Your task to perform on an android device: turn off data saver in the chrome app Image 0: 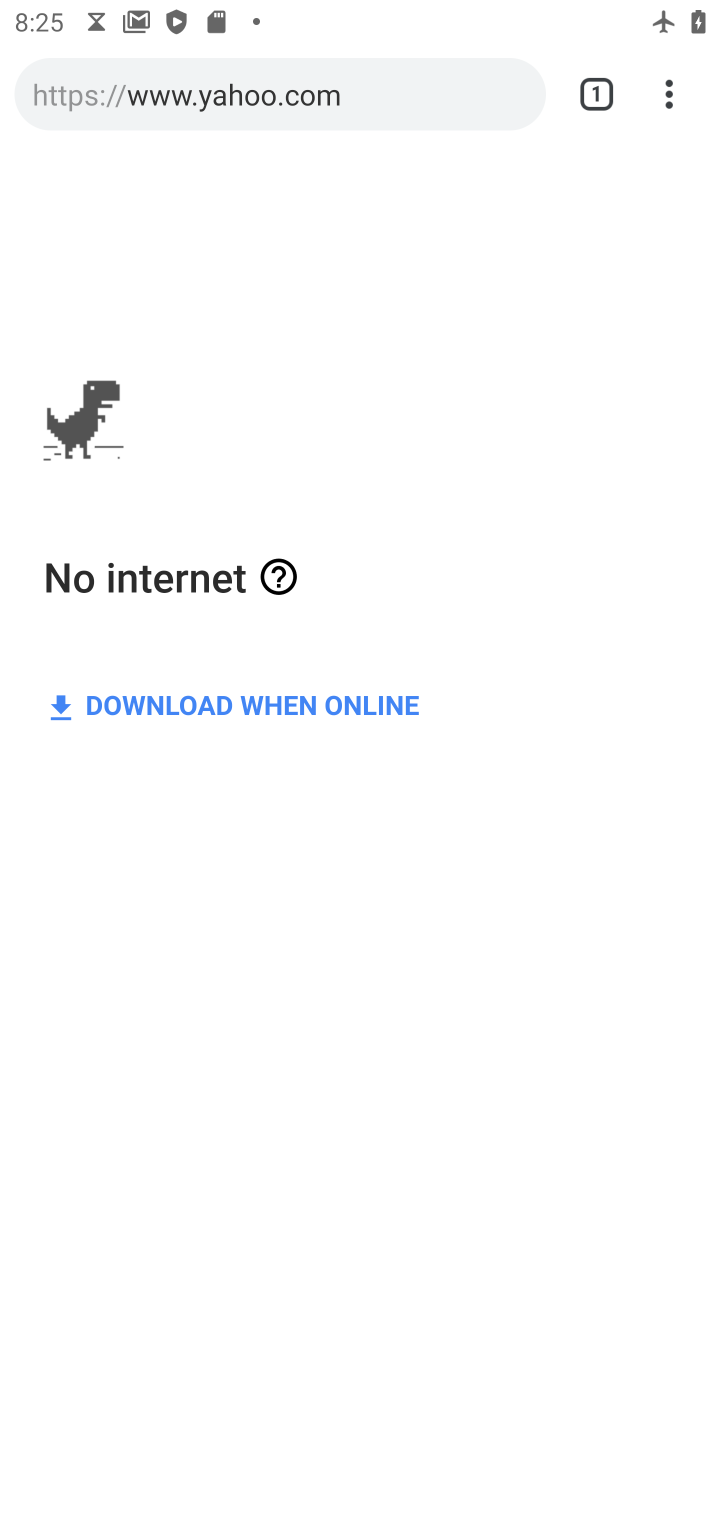
Step 0: press home button
Your task to perform on an android device: turn off data saver in the chrome app Image 1: 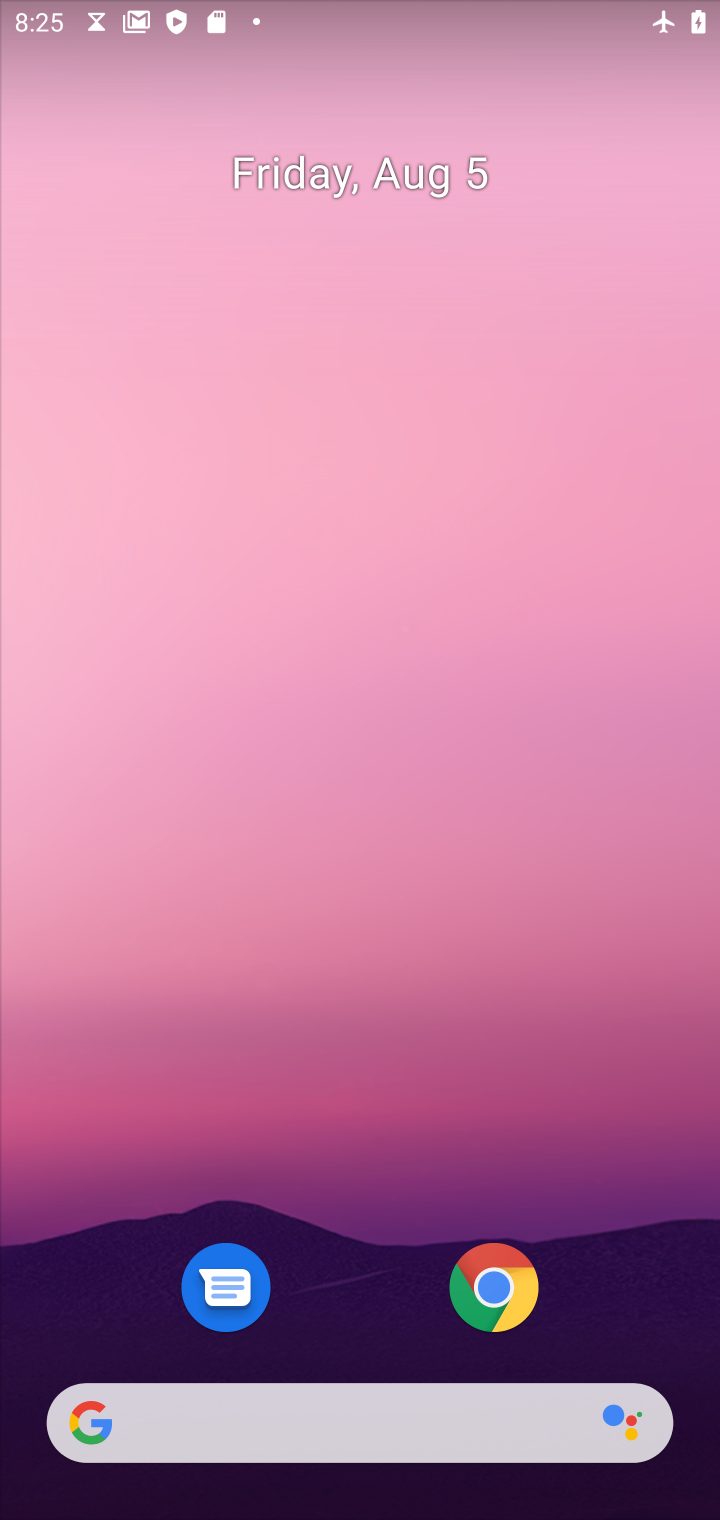
Step 1: drag from (319, 1301) to (265, 81)
Your task to perform on an android device: turn off data saver in the chrome app Image 2: 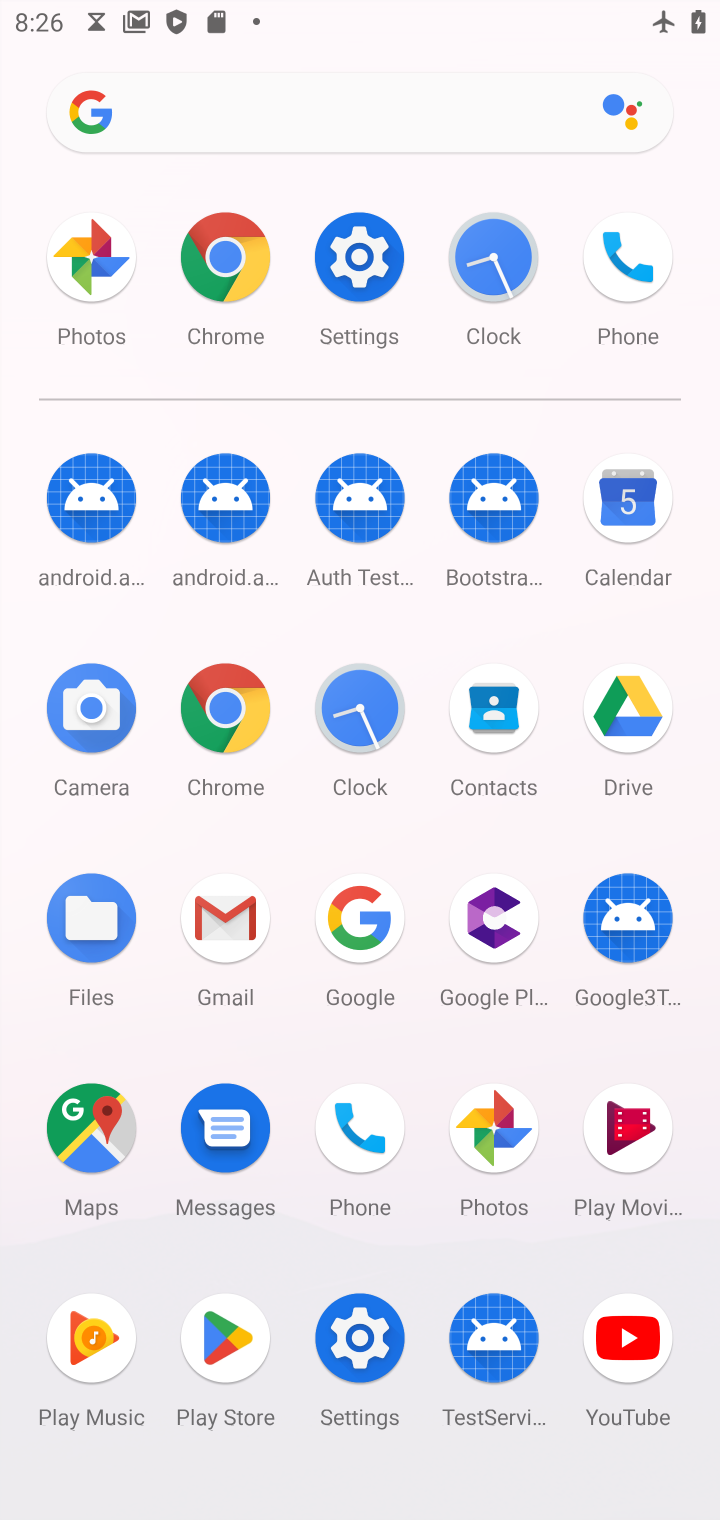
Step 2: click (220, 711)
Your task to perform on an android device: turn off data saver in the chrome app Image 3: 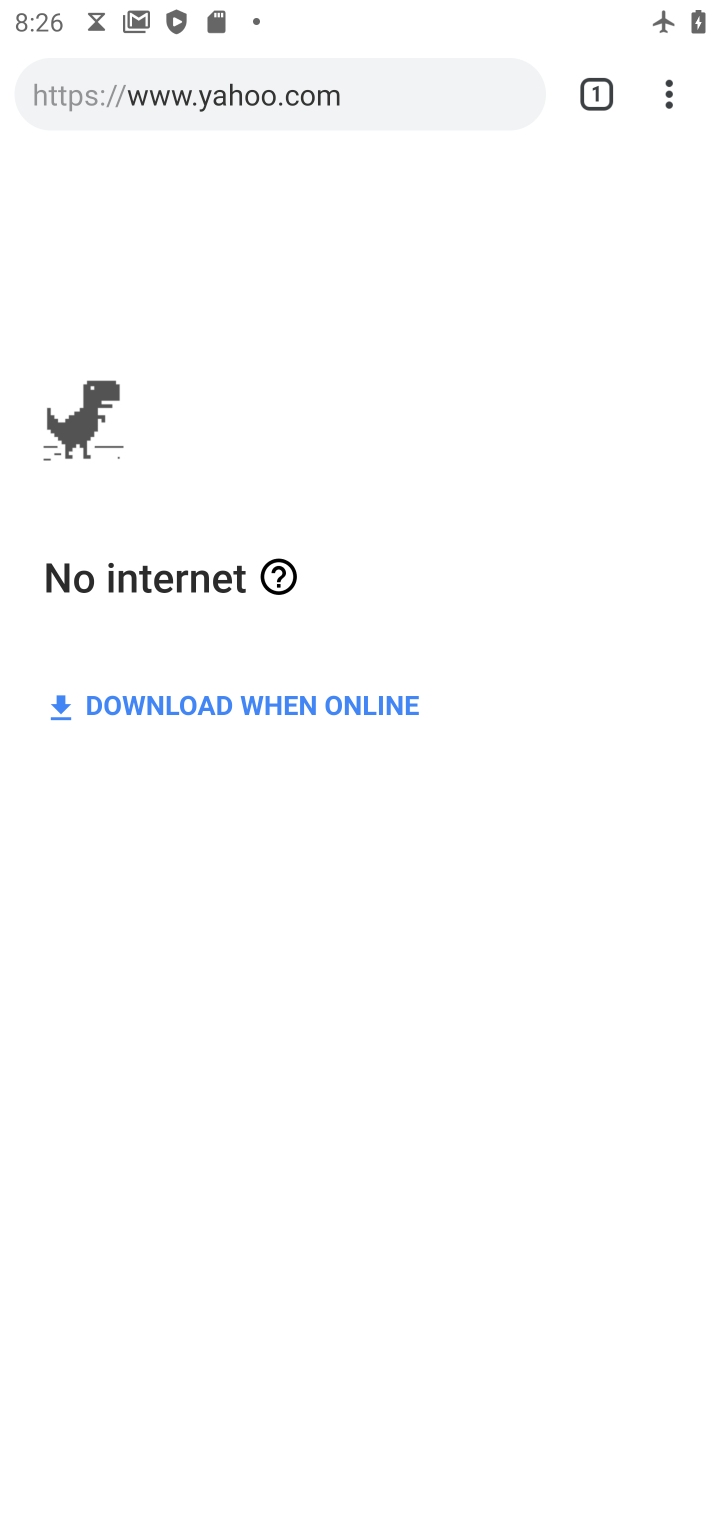
Step 3: click (669, 99)
Your task to perform on an android device: turn off data saver in the chrome app Image 4: 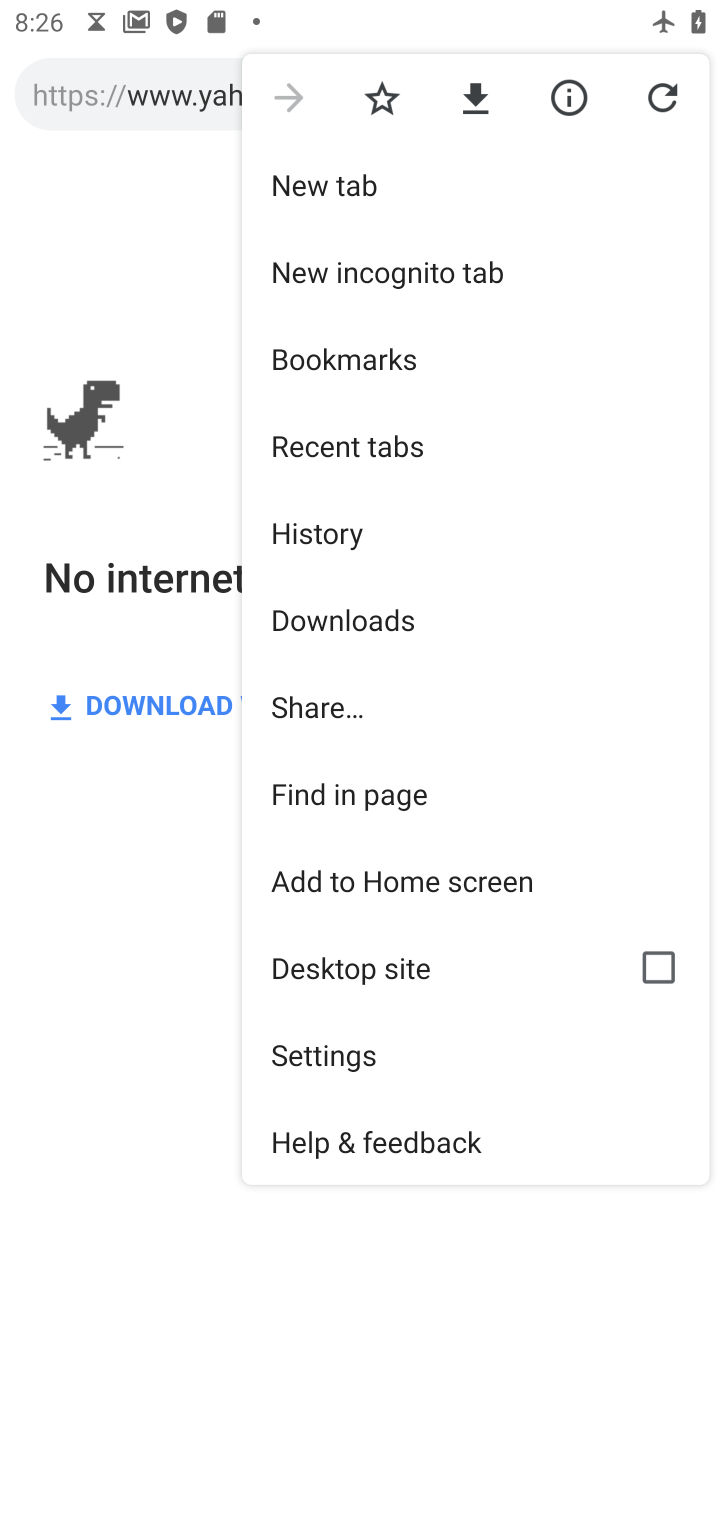
Step 4: click (311, 1037)
Your task to perform on an android device: turn off data saver in the chrome app Image 5: 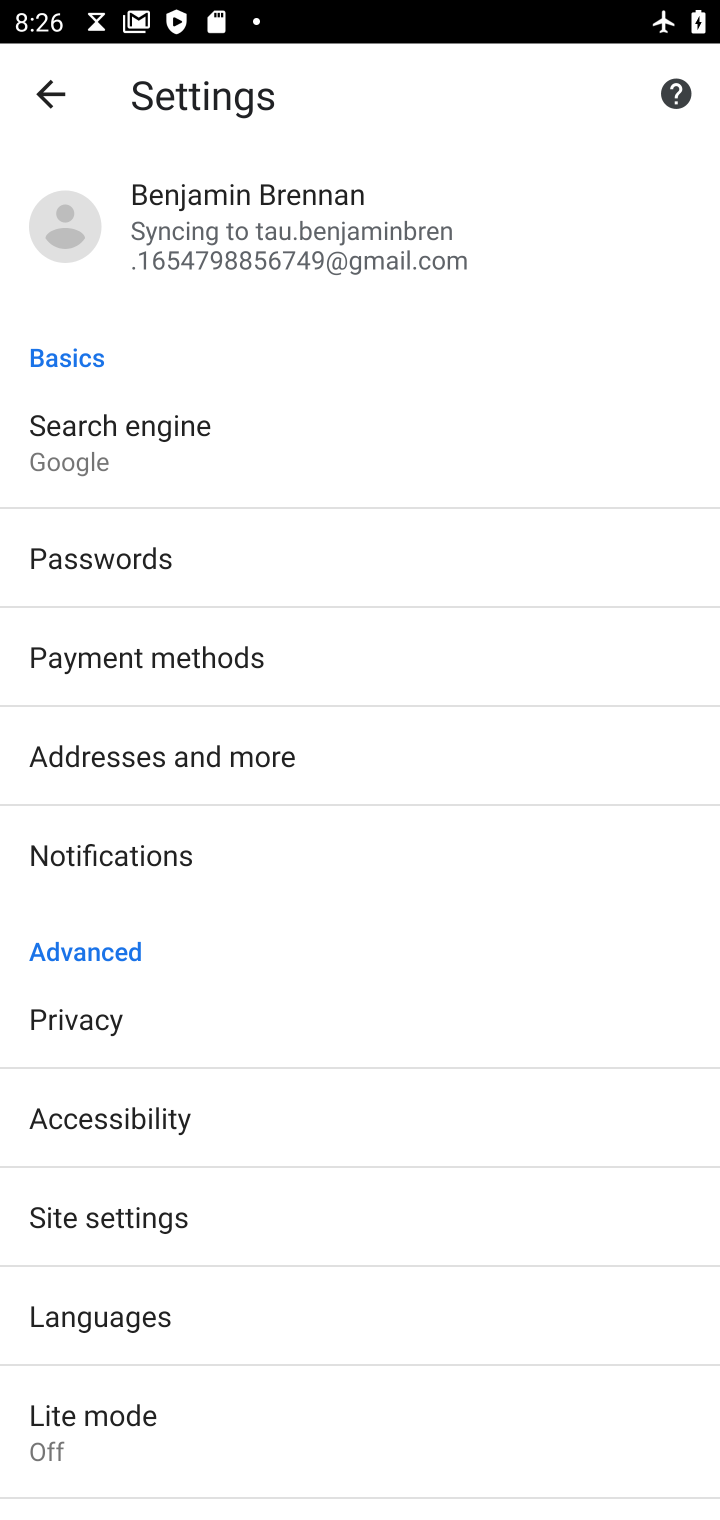
Step 5: click (128, 1409)
Your task to perform on an android device: turn off data saver in the chrome app Image 6: 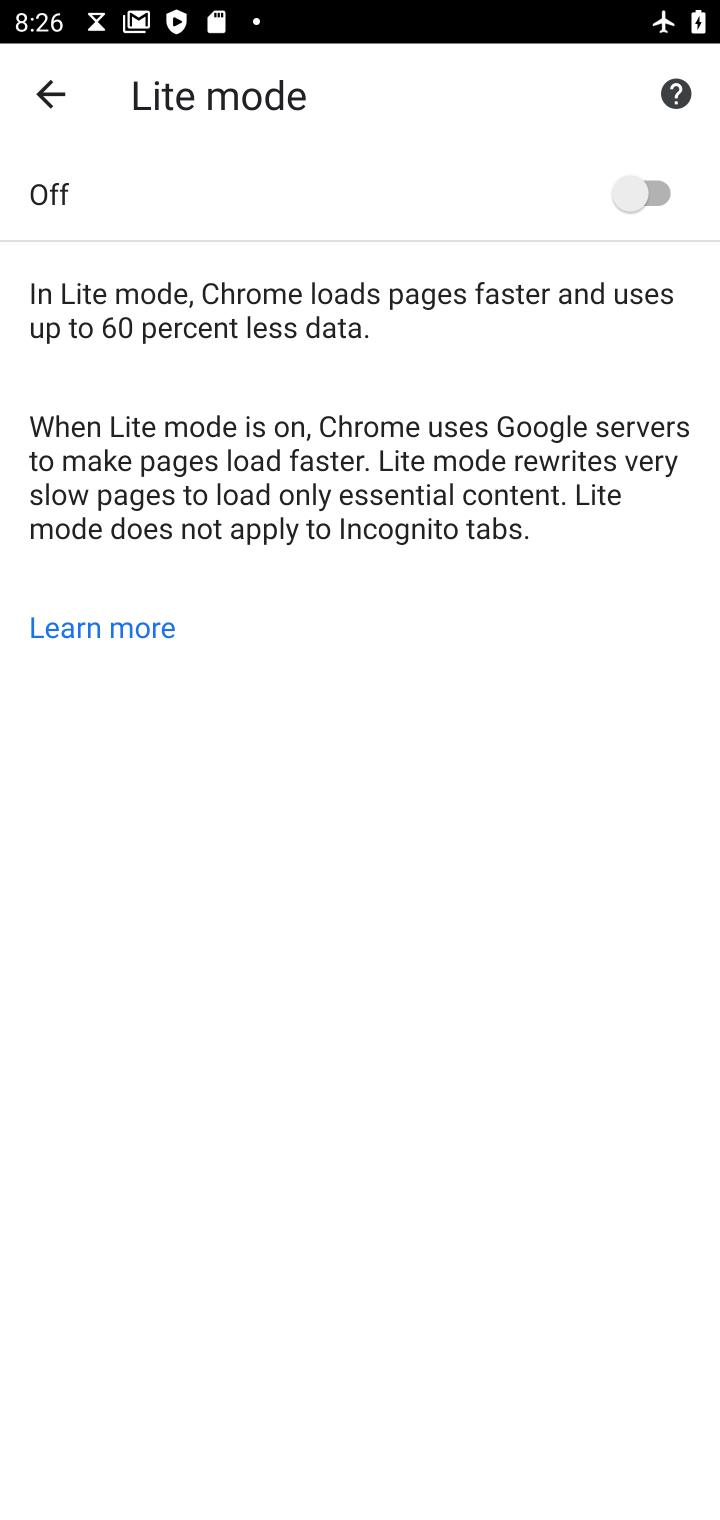
Step 6: task complete